Your task to perform on an android device: open wifi settings Image 0: 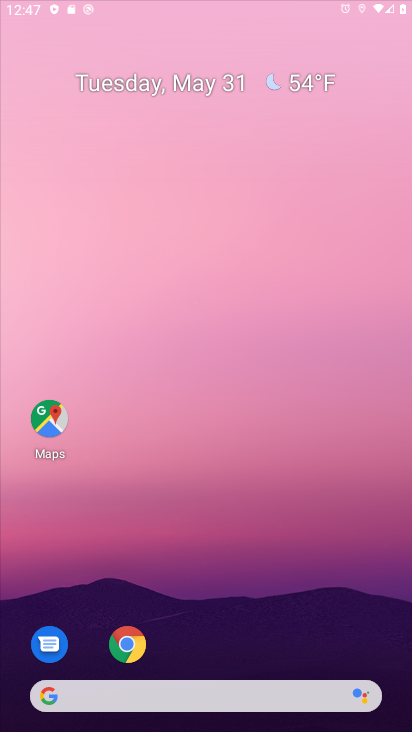
Step 0: press home button
Your task to perform on an android device: open wifi settings Image 1: 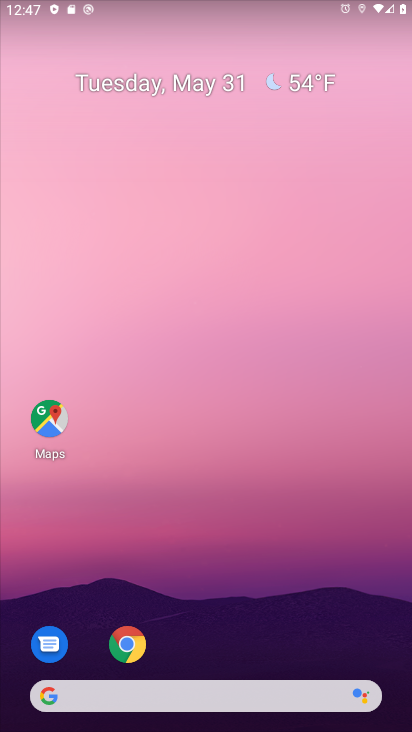
Step 1: drag from (239, 647) to (213, 42)
Your task to perform on an android device: open wifi settings Image 2: 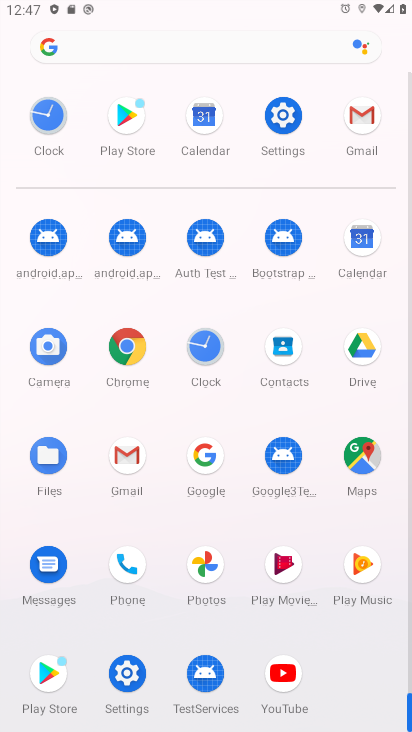
Step 2: click (289, 118)
Your task to perform on an android device: open wifi settings Image 3: 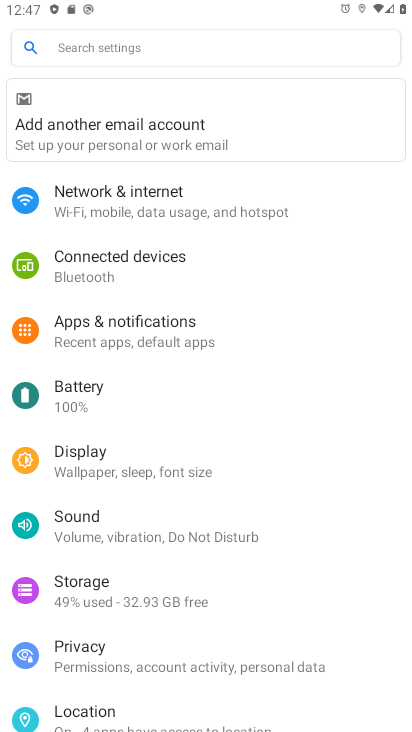
Step 3: click (110, 205)
Your task to perform on an android device: open wifi settings Image 4: 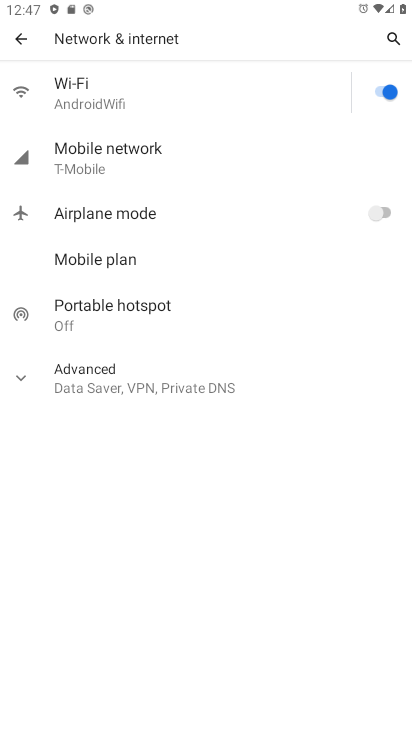
Step 4: click (76, 75)
Your task to perform on an android device: open wifi settings Image 5: 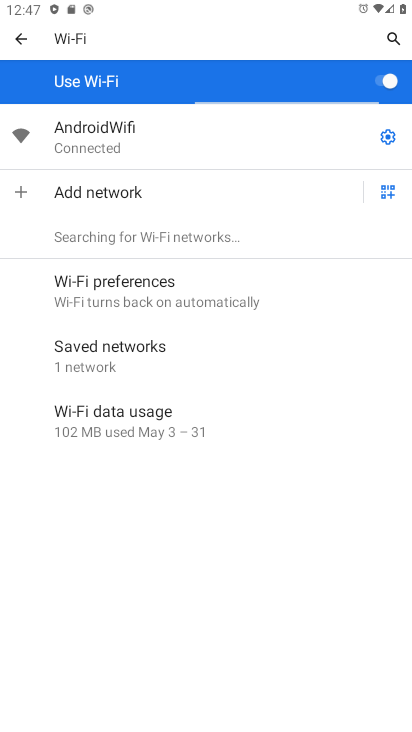
Step 5: task complete